Your task to perform on an android device: Is it going to rain tomorrow? Image 0: 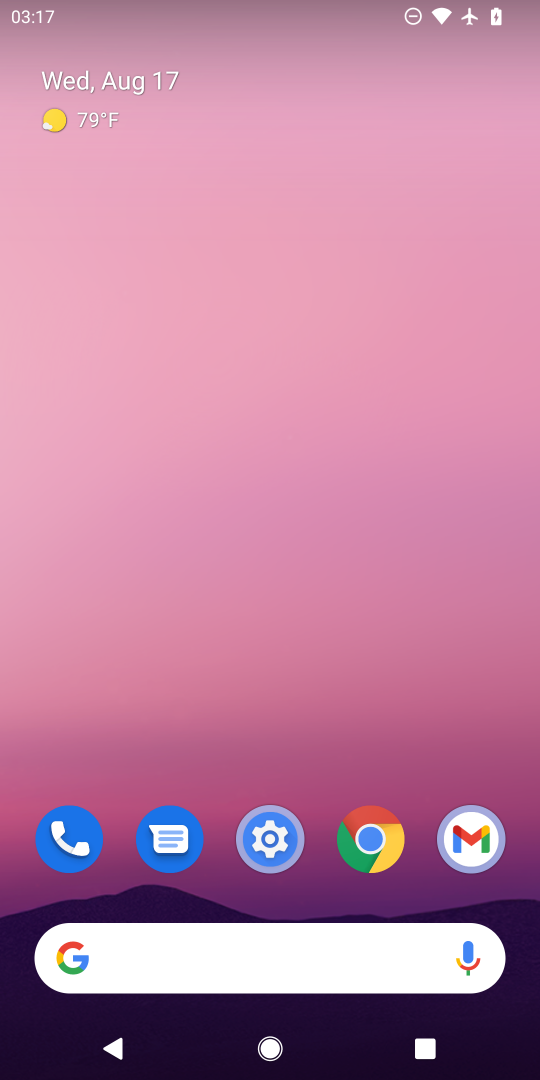
Step 0: drag from (328, 850) to (325, 160)
Your task to perform on an android device: Is it going to rain tomorrow? Image 1: 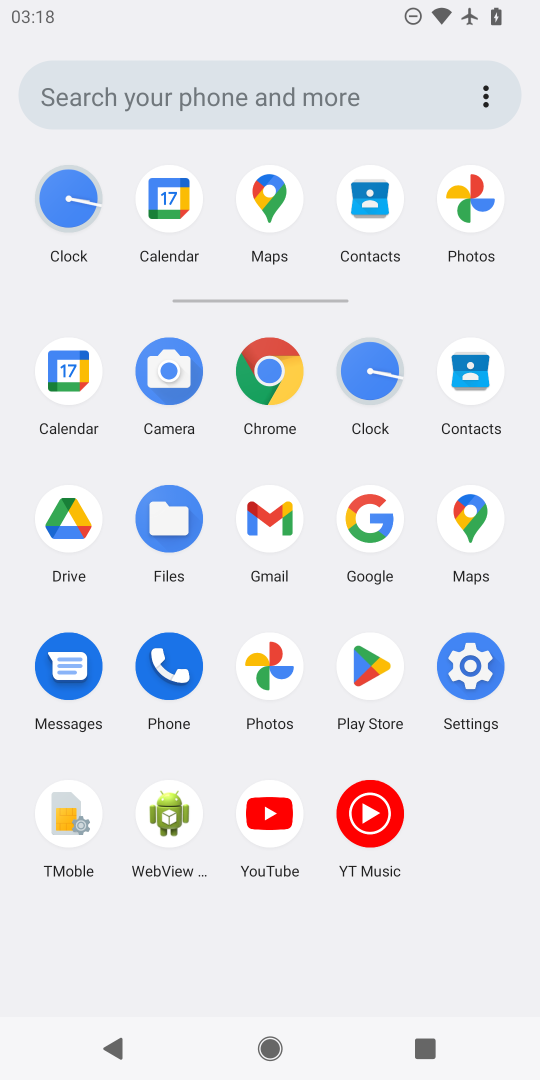
Step 1: click (368, 511)
Your task to perform on an android device: Is it going to rain tomorrow? Image 2: 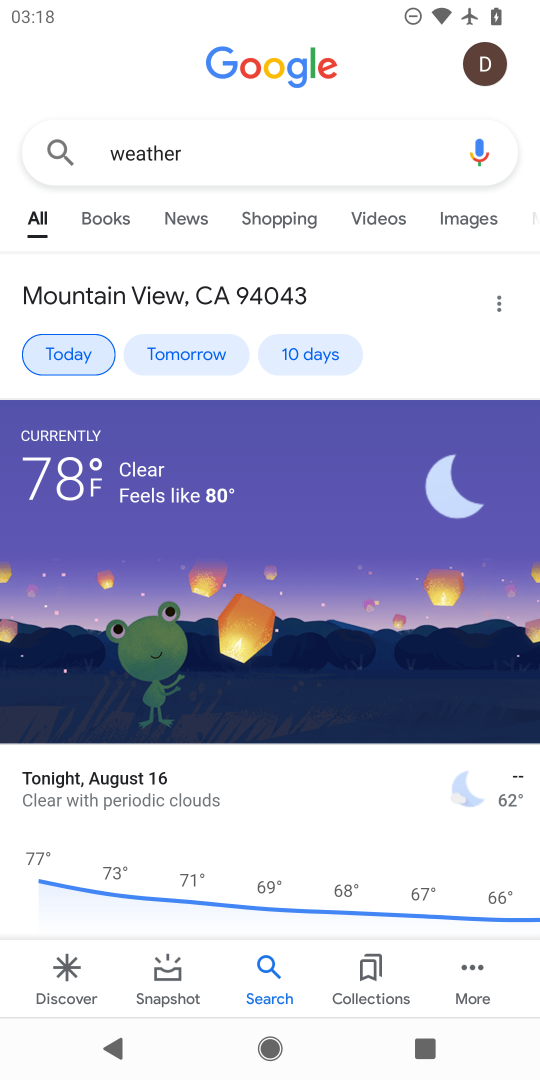
Step 2: click (198, 357)
Your task to perform on an android device: Is it going to rain tomorrow? Image 3: 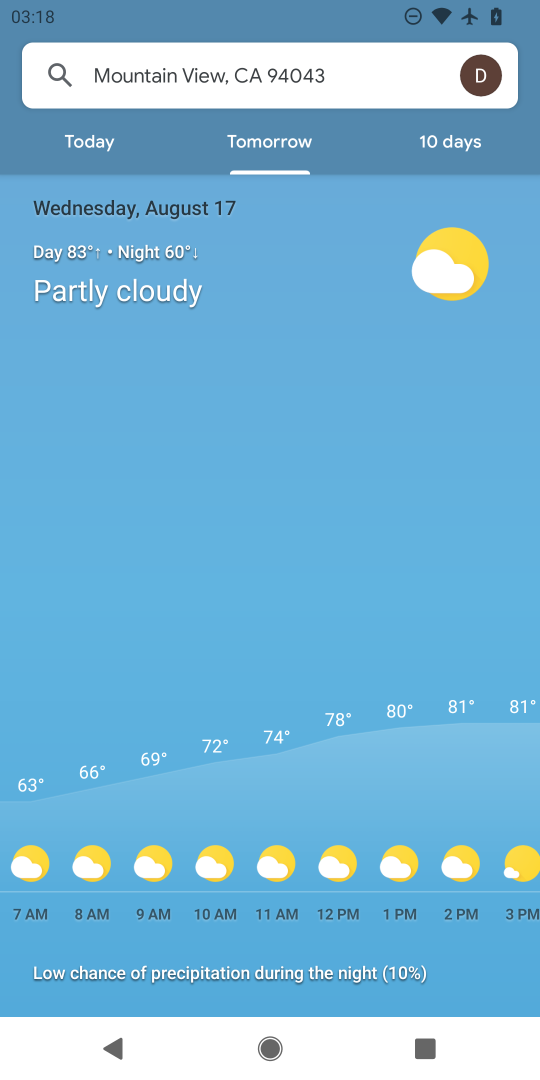
Step 3: task complete